Your task to perform on an android device: Open battery settings Image 0: 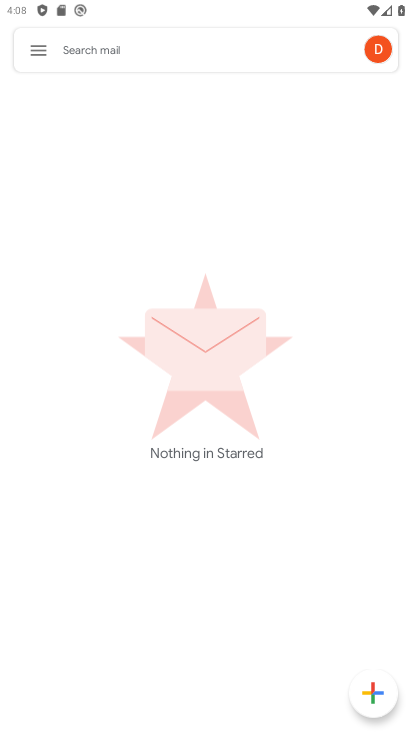
Step 0: press home button
Your task to perform on an android device: Open battery settings Image 1: 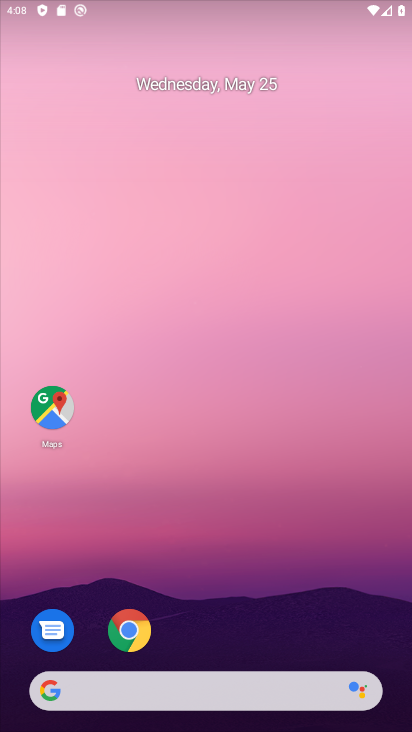
Step 1: drag from (181, 591) to (263, 28)
Your task to perform on an android device: Open battery settings Image 2: 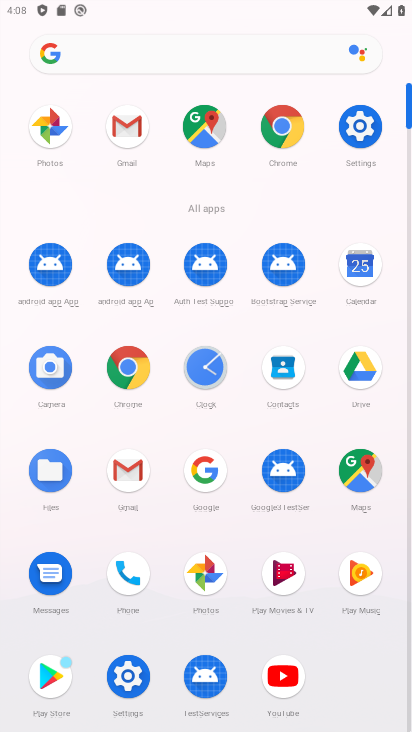
Step 2: click (350, 135)
Your task to perform on an android device: Open battery settings Image 3: 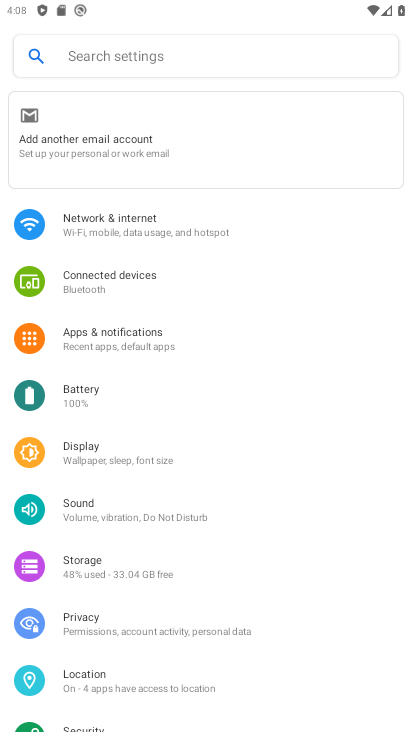
Step 3: click (108, 397)
Your task to perform on an android device: Open battery settings Image 4: 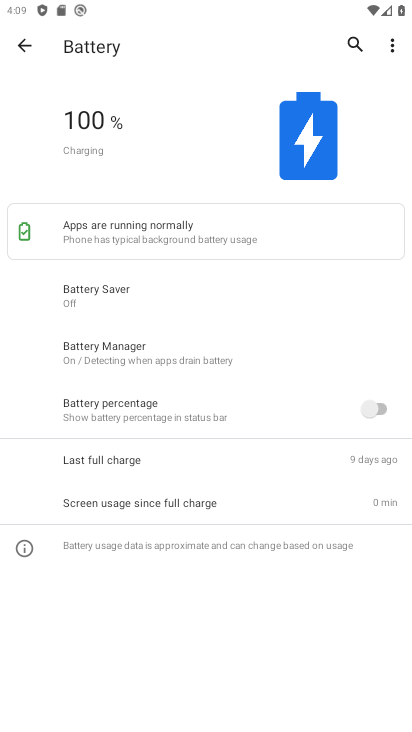
Step 4: task complete